Your task to perform on an android device: turn off javascript in the chrome app Image 0: 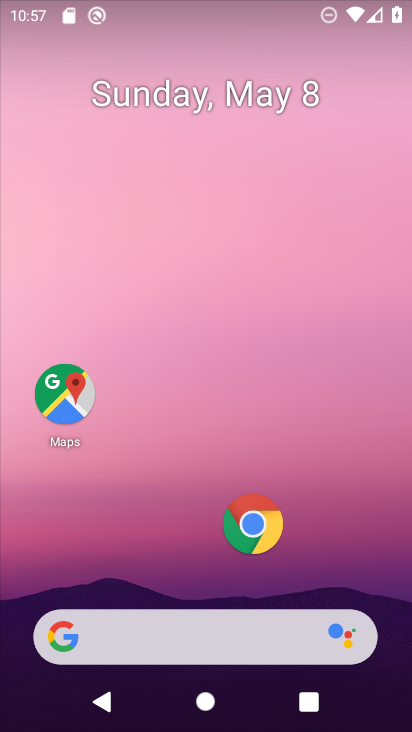
Step 0: drag from (203, 574) to (218, 93)
Your task to perform on an android device: turn off javascript in the chrome app Image 1: 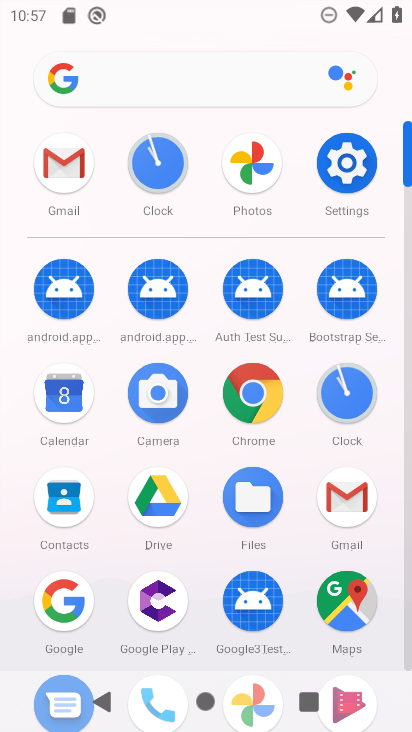
Step 1: click (238, 388)
Your task to perform on an android device: turn off javascript in the chrome app Image 2: 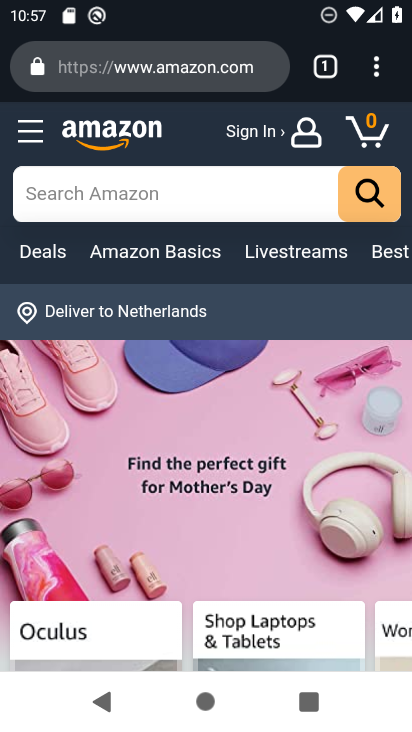
Step 2: click (378, 65)
Your task to perform on an android device: turn off javascript in the chrome app Image 3: 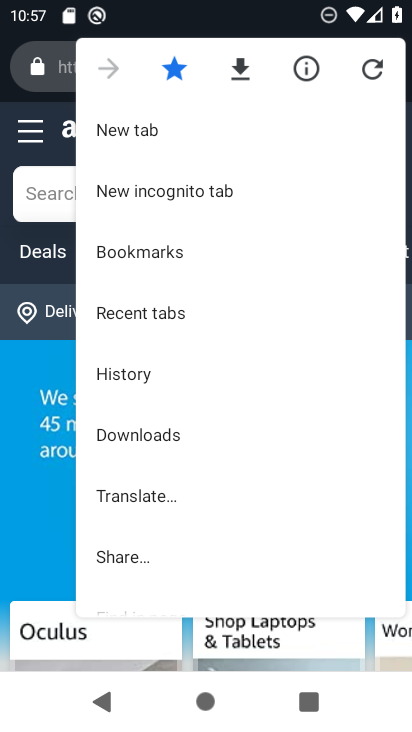
Step 3: drag from (232, 505) to (254, 172)
Your task to perform on an android device: turn off javascript in the chrome app Image 4: 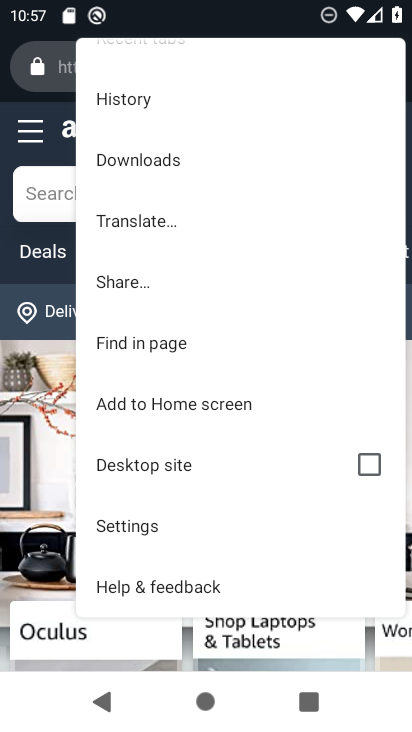
Step 4: click (172, 525)
Your task to perform on an android device: turn off javascript in the chrome app Image 5: 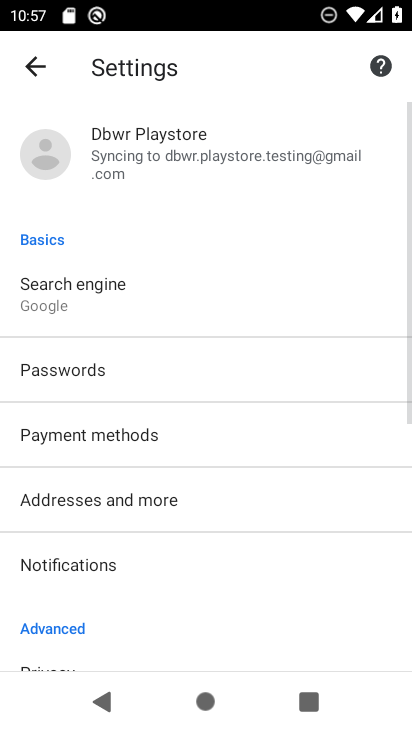
Step 5: drag from (209, 577) to (250, 113)
Your task to perform on an android device: turn off javascript in the chrome app Image 6: 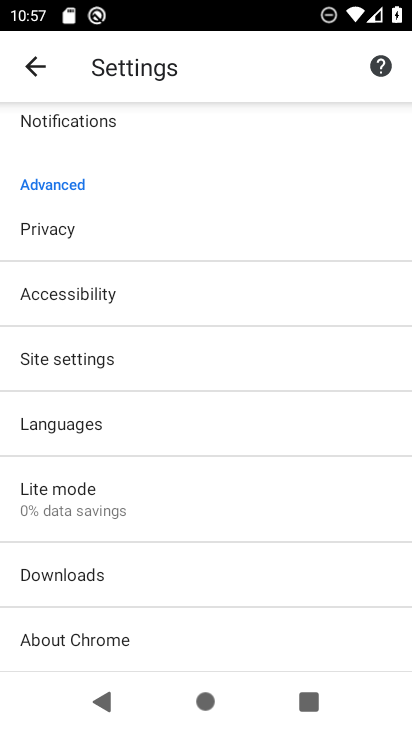
Step 6: click (193, 357)
Your task to perform on an android device: turn off javascript in the chrome app Image 7: 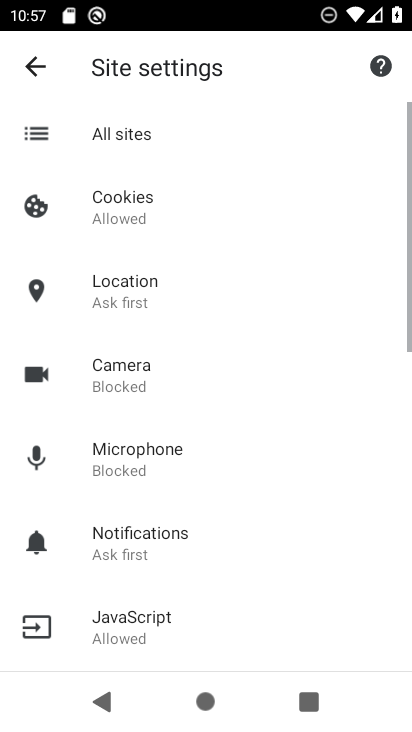
Step 7: drag from (239, 579) to (255, 337)
Your task to perform on an android device: turn off javascript in the chrome app Image 8: 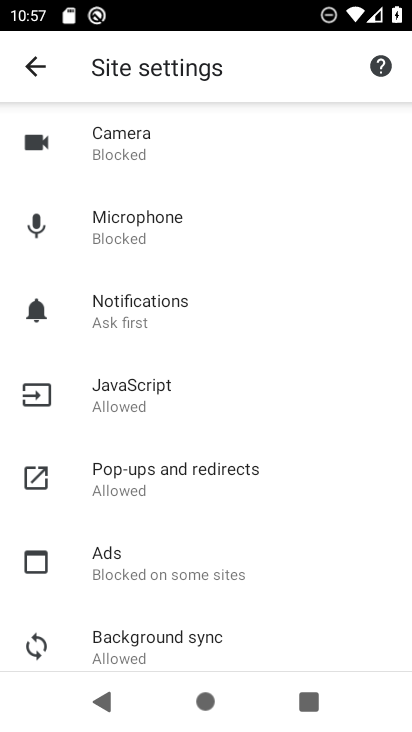
Step 8: click (219, 398)
Your task to perform on an android device: turn off javascript in the chrome app Image 9: 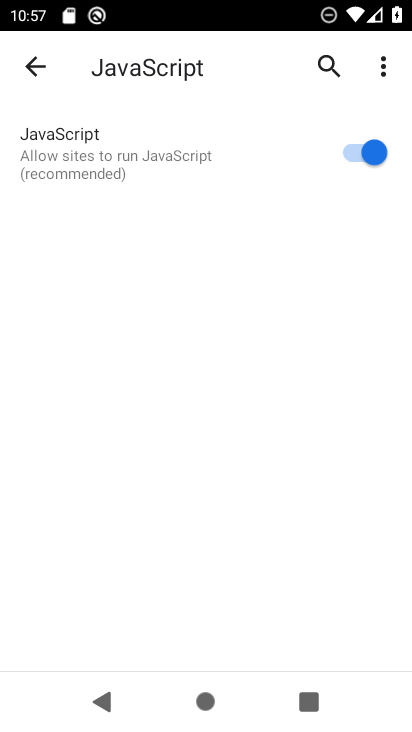
Step 9: click (356, 152)
Your task to perform on an android device: turn off javascript in the chrome app Image 10: 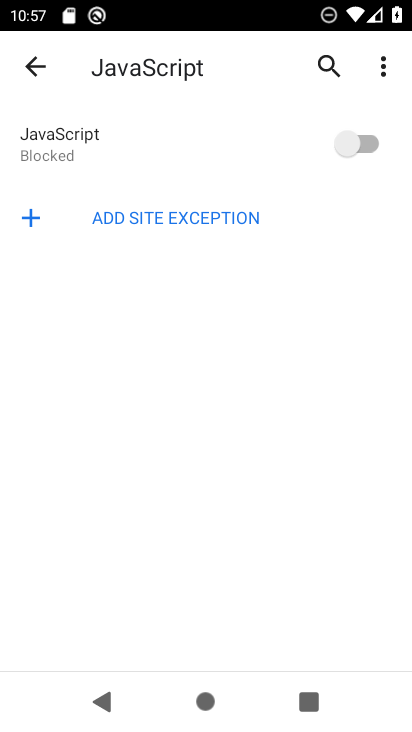
Step 10: task complete